Your task to perform on an android device: toggle sleep mode Image 0: 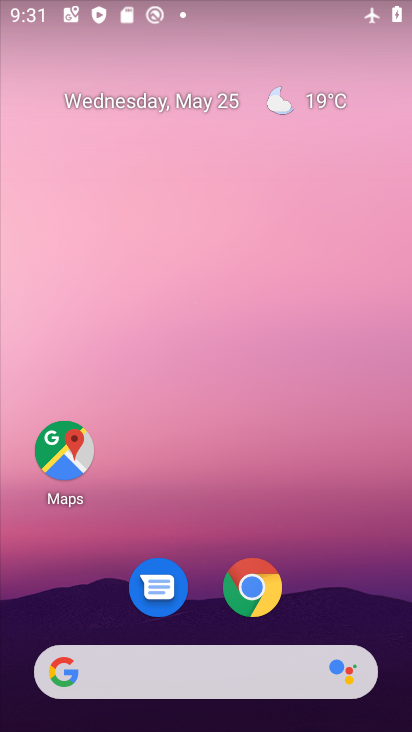
Step 0: drag from (374, 621) to (331, 108)
Your task to perform on an android device: toggle sleep mode Image 1: 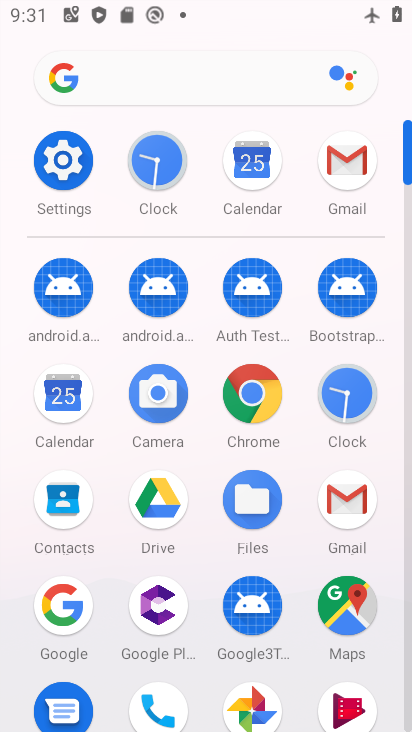
Step 1: click (408, 699)
Your task to perform on an android device: toggle sleep mode Image 2: 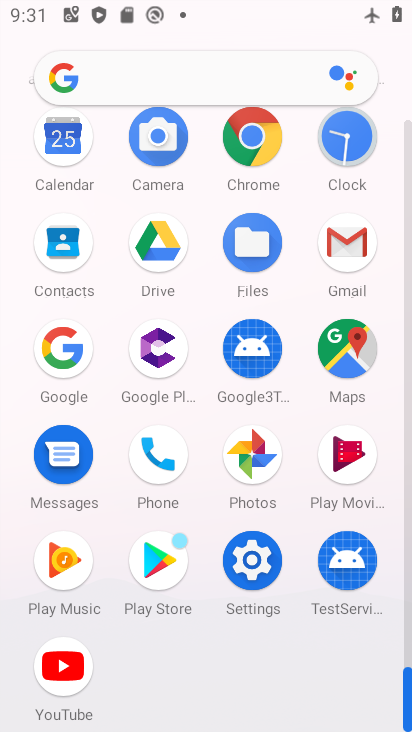
Step 2: click (247, 562)
Your task to perform on an android device: toggle sleep mode Image 3: 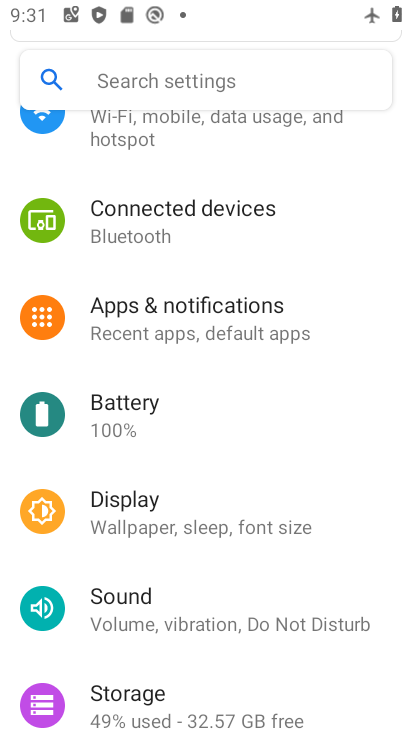
Step 3: drag from (371, 632) to (323, 203)
Your task to perform on an android device: toggle sleep mode Image 4: 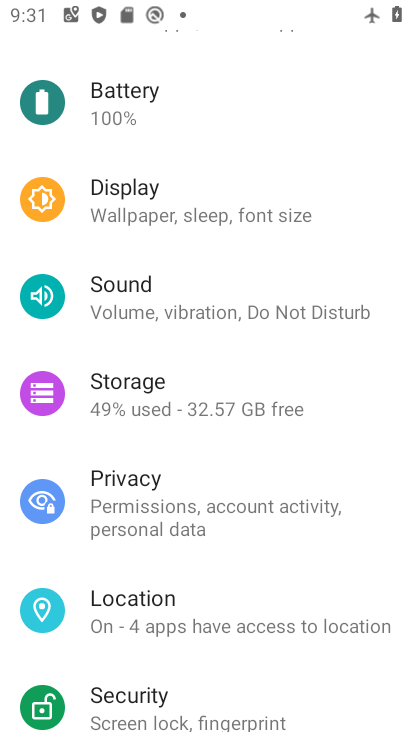
Step 4: click (145, 207)
Your task to perform on an android device: toggle sleep mode Image 5: 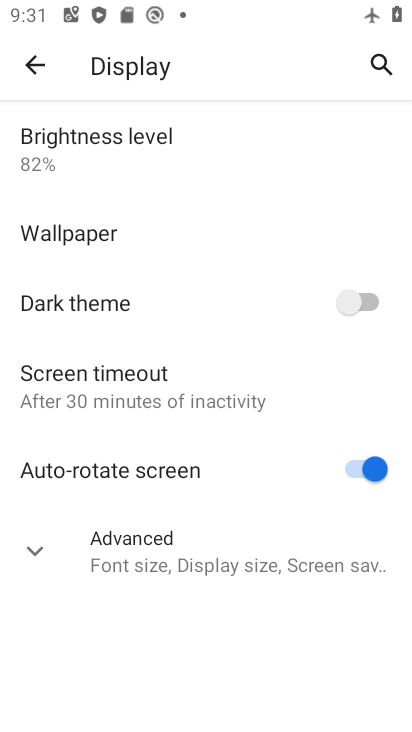
Step 5: click (33, 556)
Your task to perform on an android device: toggle sleep mode Image 6: 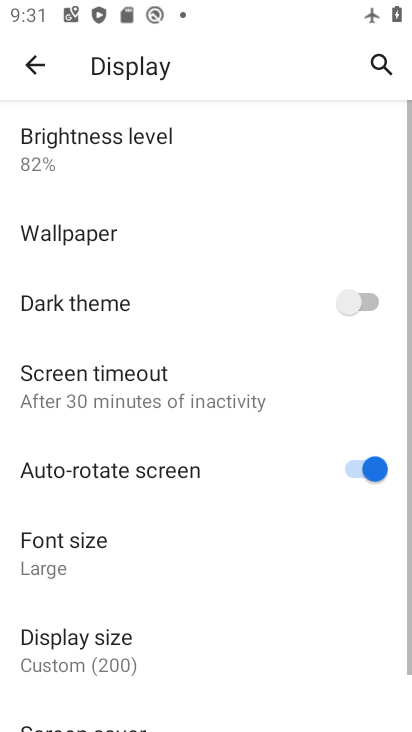
Step 6: task complete